Your task to perform on an android device: check storage Image 0: 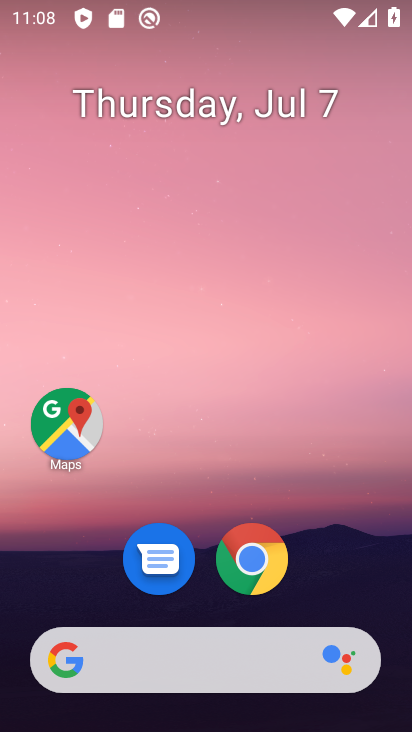
Step 0: drag from (351, 566) to (301, 123)
Your task to perform on an android device: check storage Image 1: 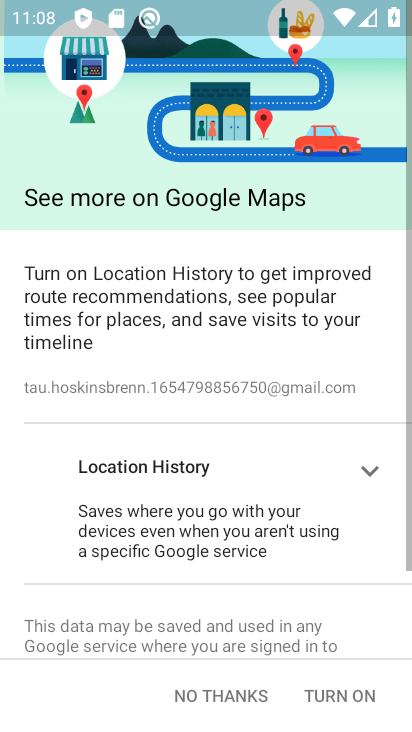
Step 1: press home button
Your task to perform on an android device: check storage Image 2: 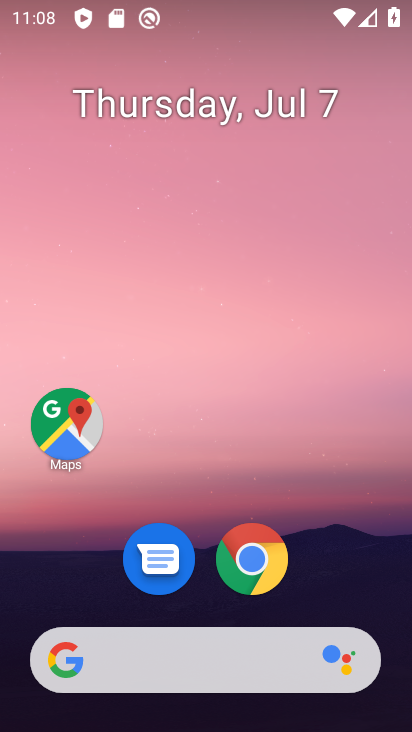
Step 2: drag from (356, 555) to (348, 79)
Your task to perform on an android device: check storage Image 3: 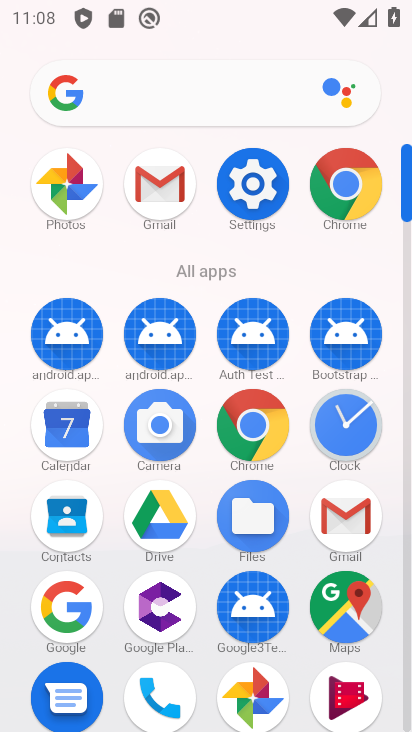
Step 3: click (265, 189)
Your task to perform on an android device: check storage Image 4: 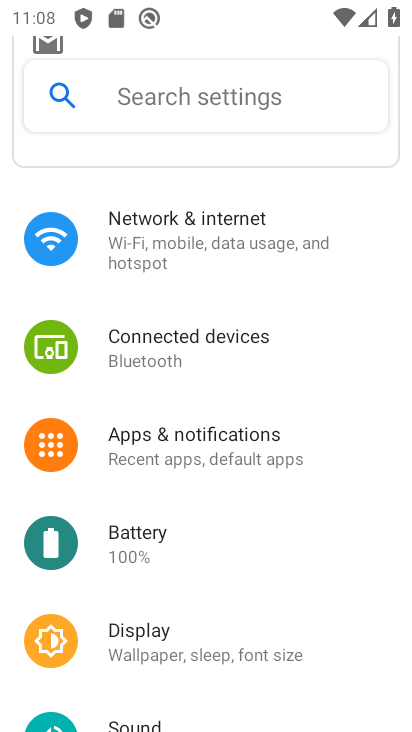
Step 4: drag from (359, 508) to (337, 343)
Your task to perform on an android device: check storage Image 5: 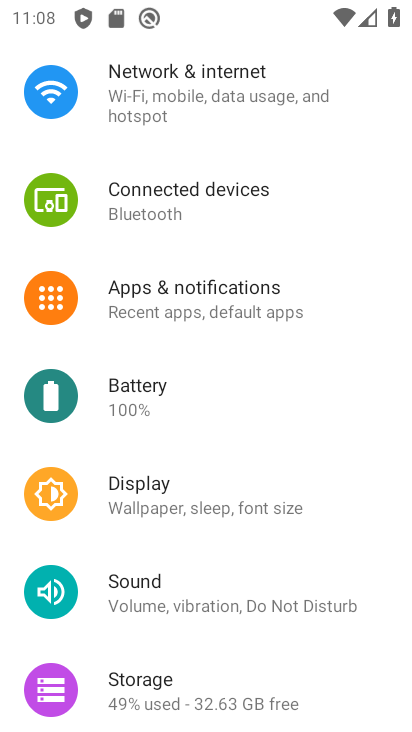
Step 5: drag from (344, 537) to (345, 363)
Your task to perform on an android device: check storage Image 6: 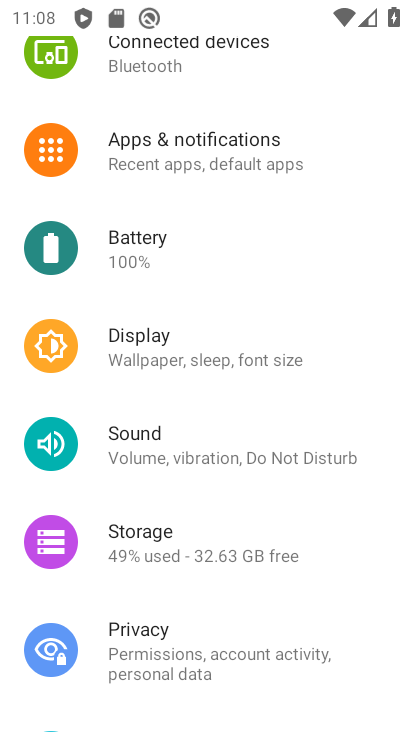
Step 6: drag from (363, 560) to (363, 405)
Your task to perform on an android device: check storage Image 7: 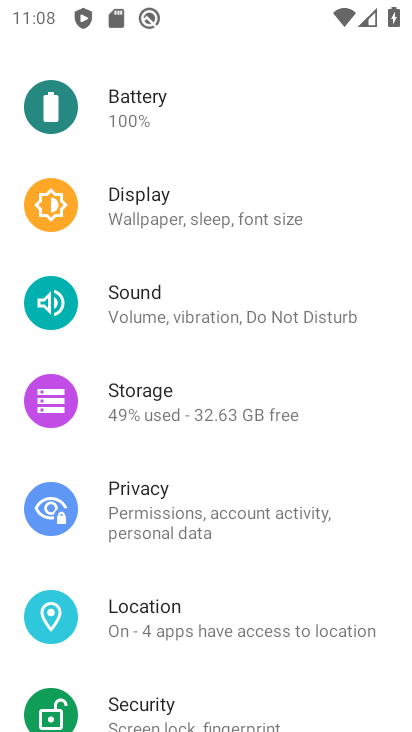
Step 7: drag from (371, 569) to (359, 396)
Your task to perform on an android device: check storage Image 8: 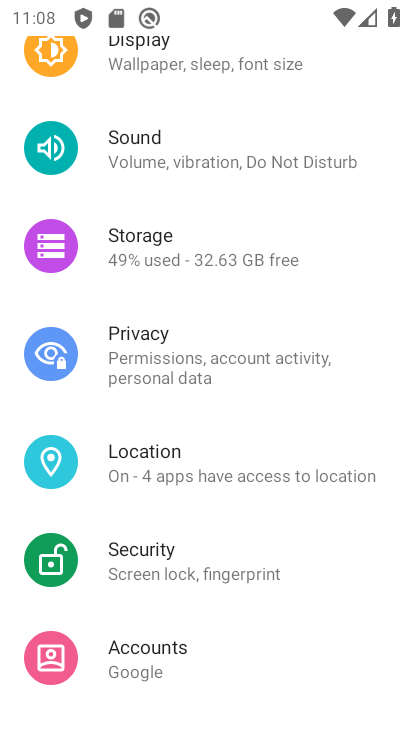
Step 8: drag from (355, 602) to (355, 420)
Your task to perform on an android device: check storage Image 9: 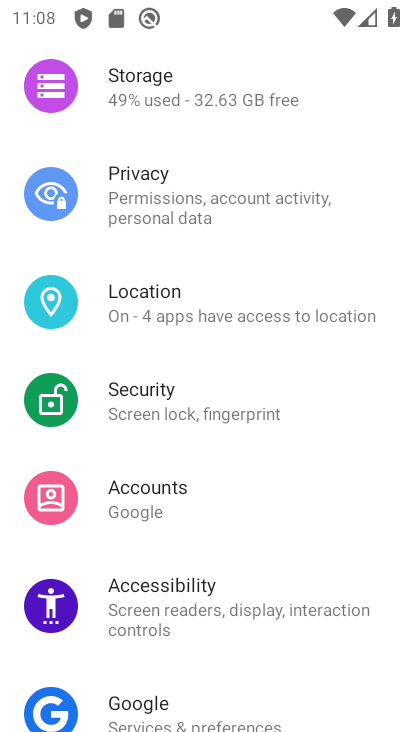
Step 9: drag from (356, 530) to (356, 385)
Your task to perform on an android device: check storage Image 10: 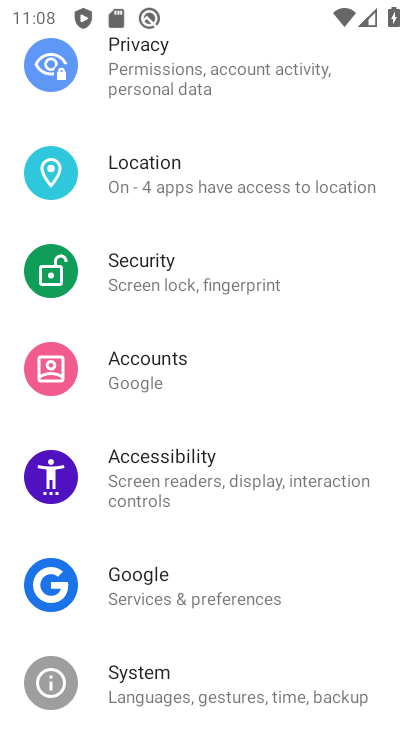
Step 10: drag from (354, 294) to (358, 414)
Your task to perform on an android device: check storage Image 11: 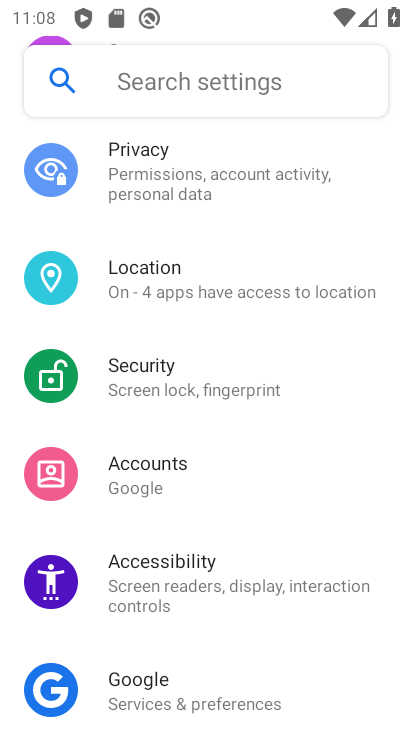
Step 11: drag from (327, 435) to (333, 533)
Your task to perform on an android device: check storage Image 12: 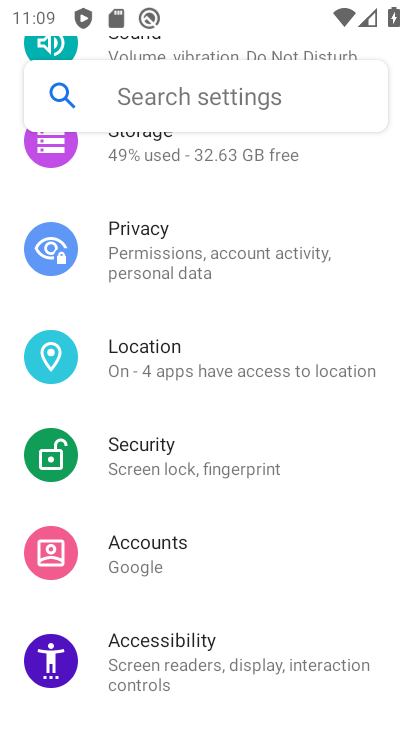
Step 12: drag from (356, 273) to (355, 429)
Your task to perform on an android device: check storage Image 13: 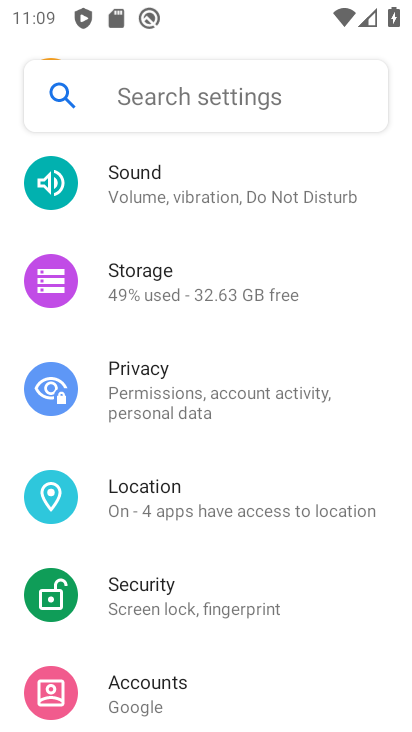
Step 13: drag from (344, 254) to (341, 370)
Your task to perform on an android device: check storage Image 14: 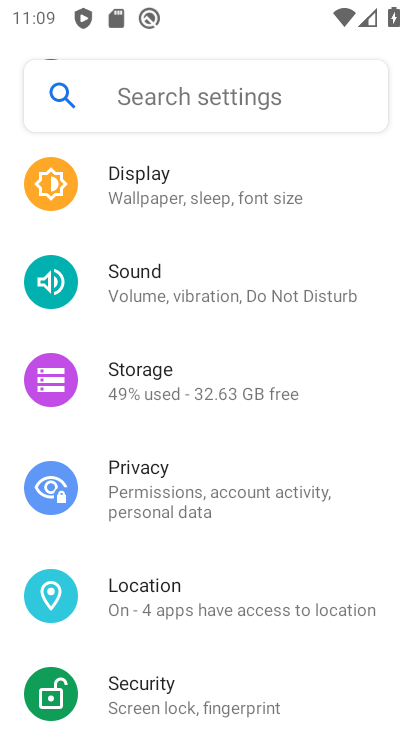
Step 14: click (224, 383)
Your task to perform on an android device: check storage Image 15: 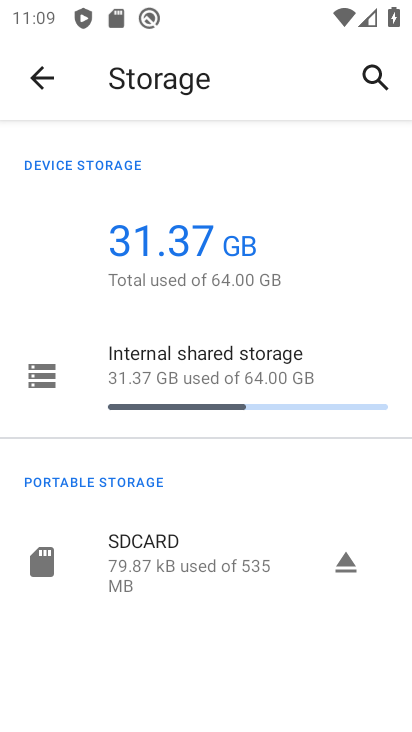
Step 15: task complete